Your task to perform on an android device: Search for Italian restaurants on Maps Image 0: 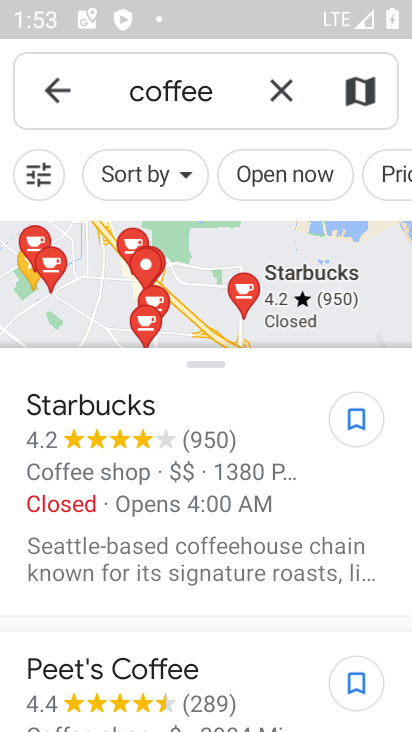
Step 0: click (295, 103)
Your task to perform on an android device: Search for Italian restaurants on Maps Image 1: 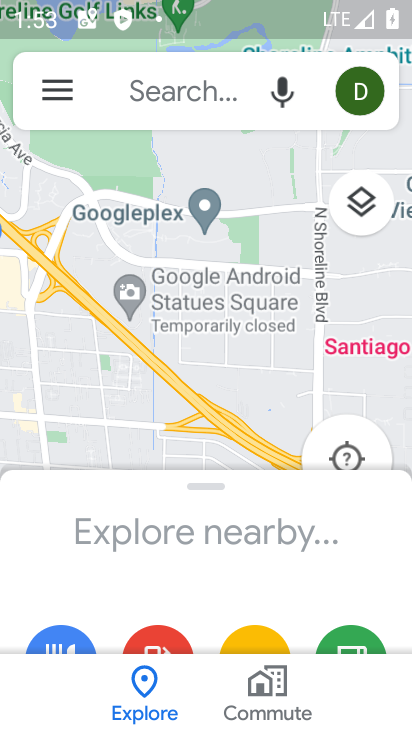
Step 1: click (182, 89)
Your task to perform on an android device: Search for Italian restaurants on Maps Image 2: 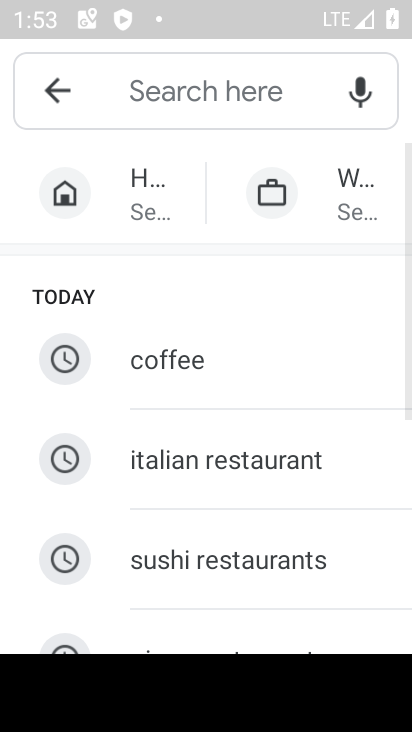
Step 2: click (258, 451)
Your task to perform on an android device: Search for Italian restaurants on Maps Image 3: 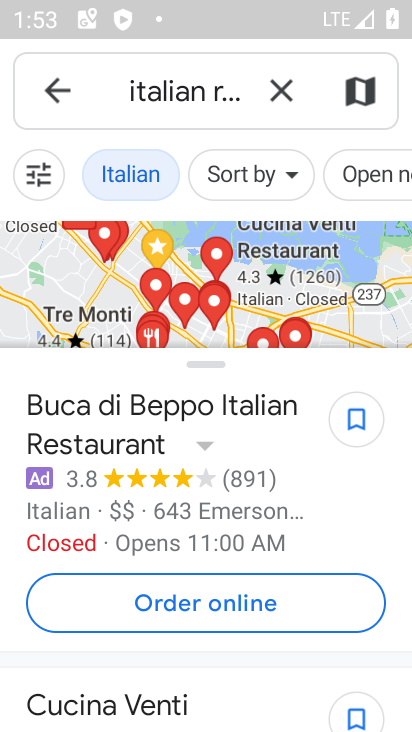
Step 3: task complete